Your task to perform on an android device: turn on location history Image 0: 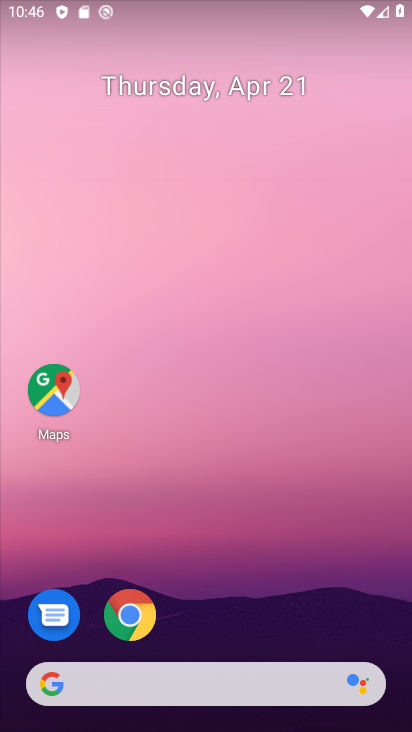
Step 0: drag from (323, 450) to (307, 85)
Your task to perform on an android device: turn on location history Image 1: 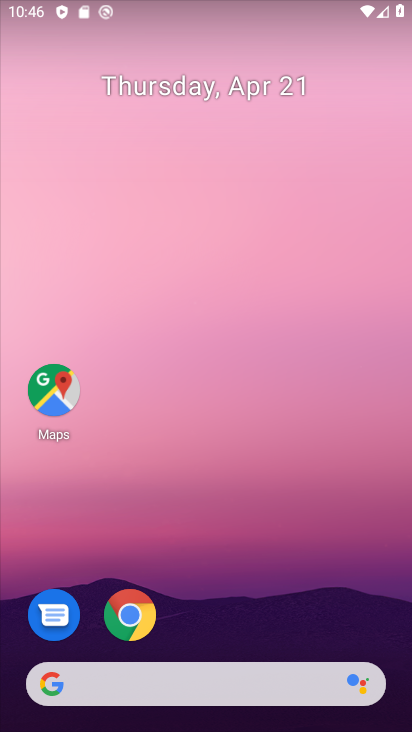
Step 1: click (236, 242)
Your task to perform on an android device: turn on location history Image 2: 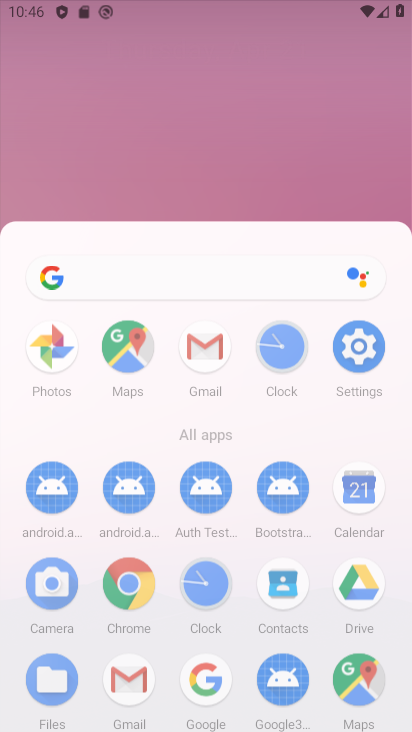
Step 2: drag from (267, 589) to (224, 244)
Your task to perform on an android device: turn on location history Image 3: 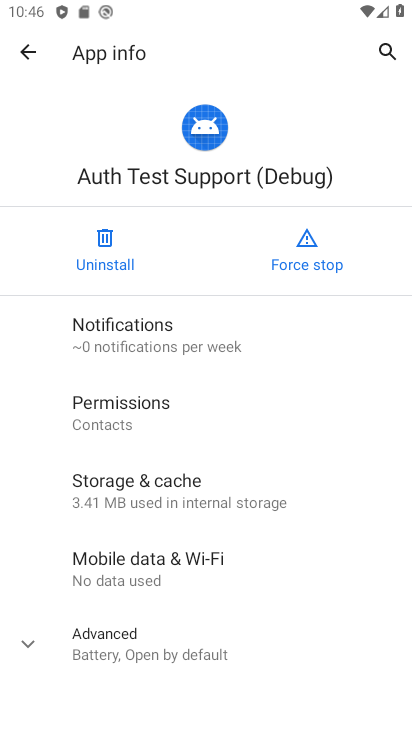
Step 3: click (25, 47)
Your task to perform on an android device: turn on location history Image 4: 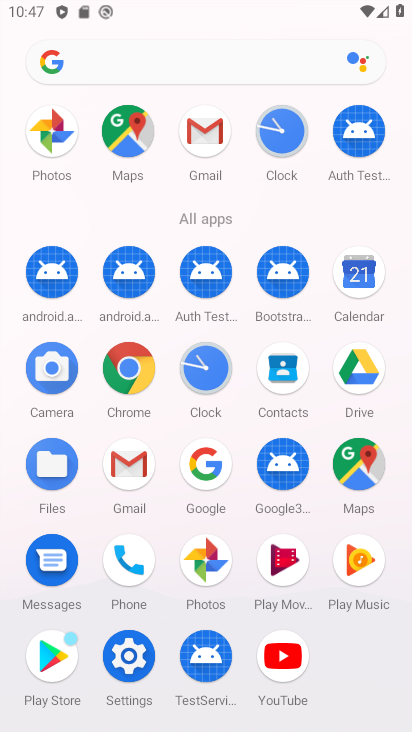
Step 4: click (354, 480)
Your task to perform on an android device: turn on location history Image 5: 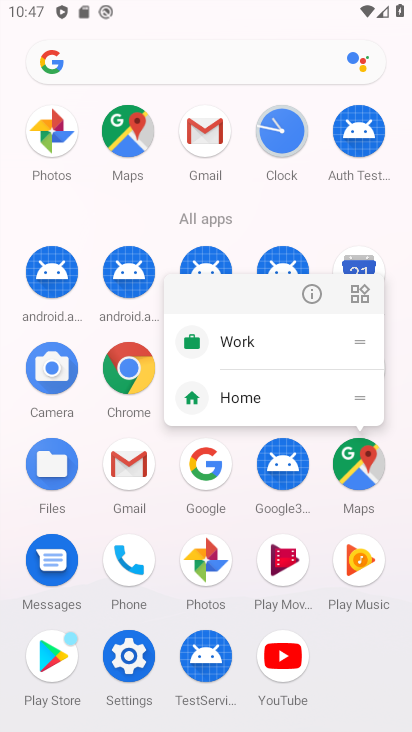
Step 5: click (370, 470)
Your task to perform on an android device: turn on location history Image 6: 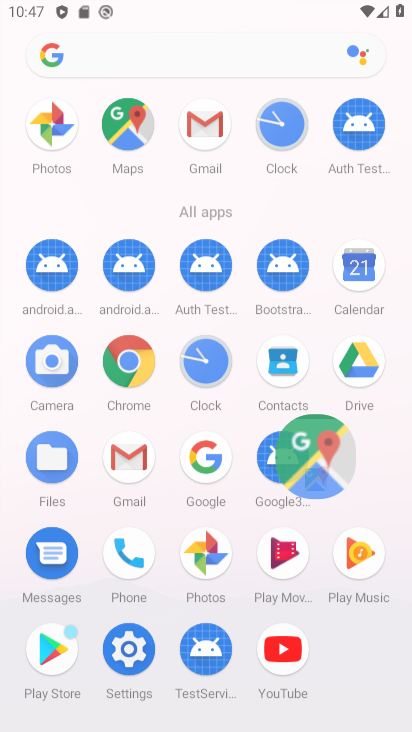
Step 6: click (352, 450)
Your task to perform on an android device: turn on location history Image 7: 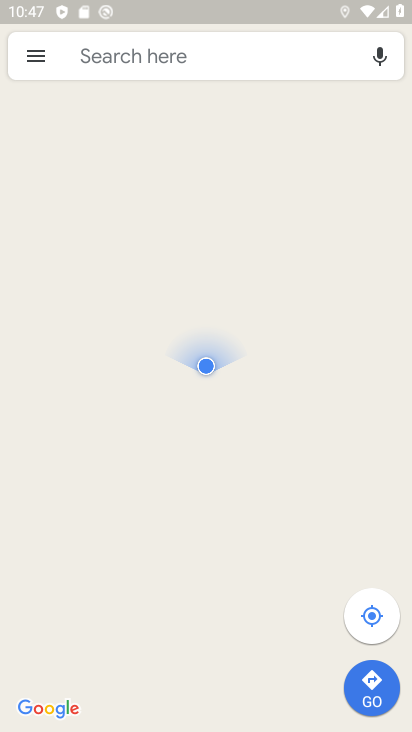
Step 7: click (39, 53)
Your task to perform on an android device: turn on location history Image 8: 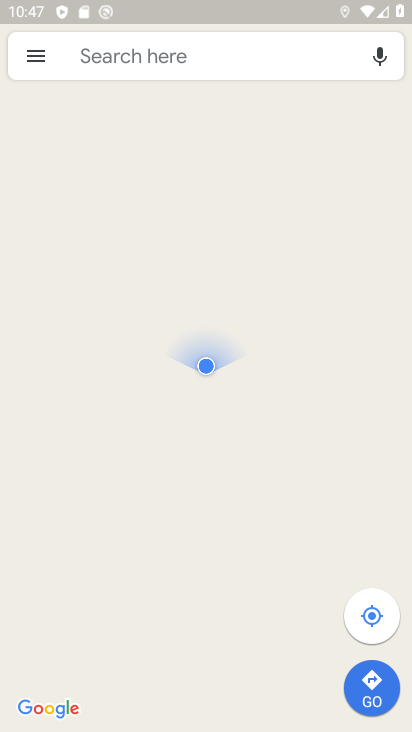
Step 8: click (39, 53)
Your task to perform on an android device: turn on location history Image 9: 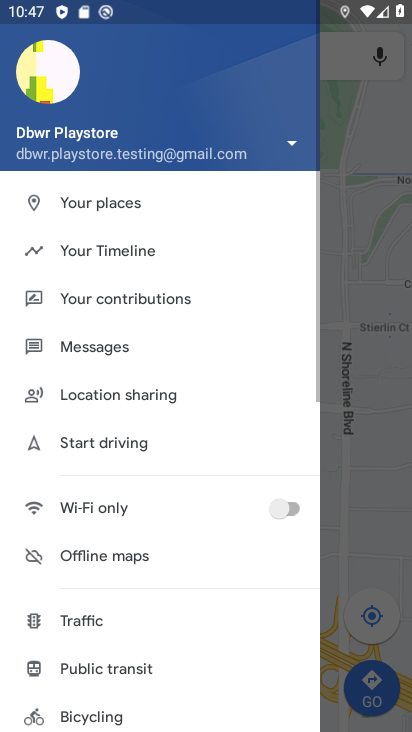
Step 9: click (117, 250)
Your task to perform on an android device: turn on location history Image 10: 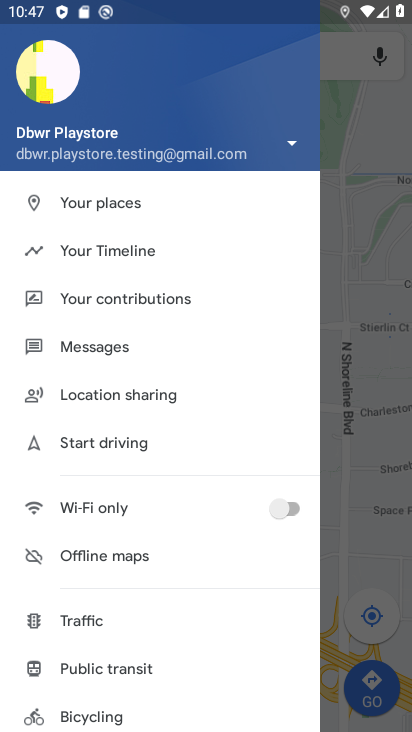
Step 10: click (117, 246)
Your task to perform on an android device: turn on location history Image 11: 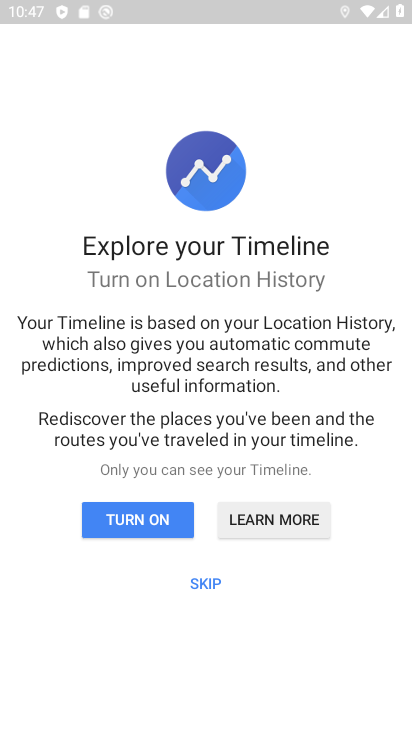
Step 11: click (117, 246)
Your task to perform on an android device: turn on location history Image 12: 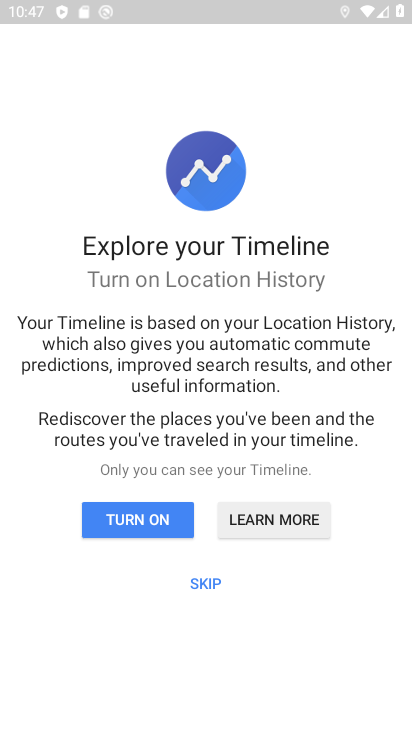
Step 12: click (121, 516)
Your task to perform on an android device: turn on location history Image 13: 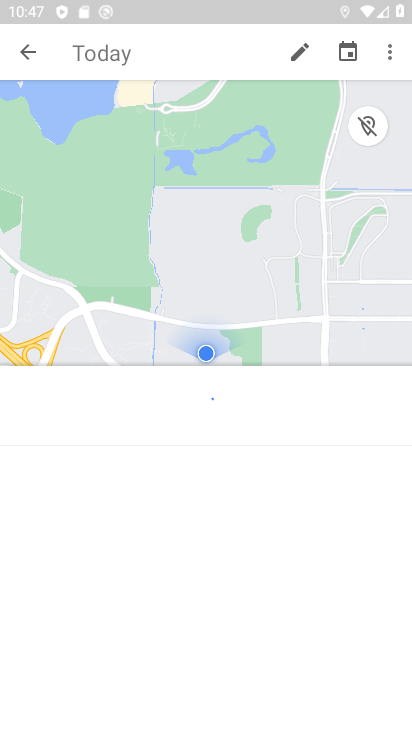
Step 13: click (388, 49)
Your task to perform on an android device: turn on location history Image 14: 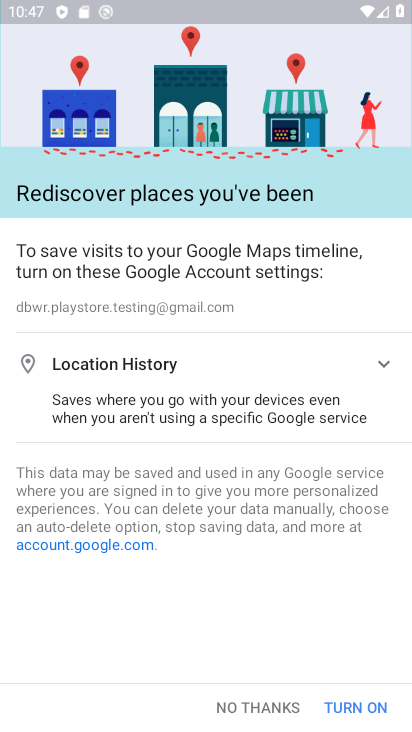
Step 14: click (356, 716)
Your task to perform on an android device: turn on location history Image 15: 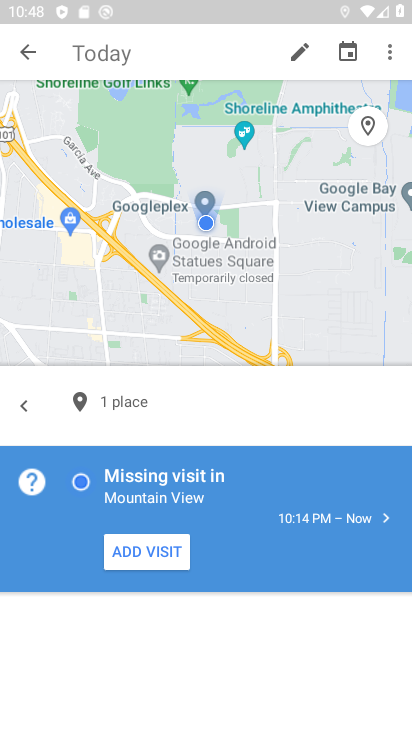
Step 15: click (390, 50)
Your task to perform on an android device: turn on location history Image 16: 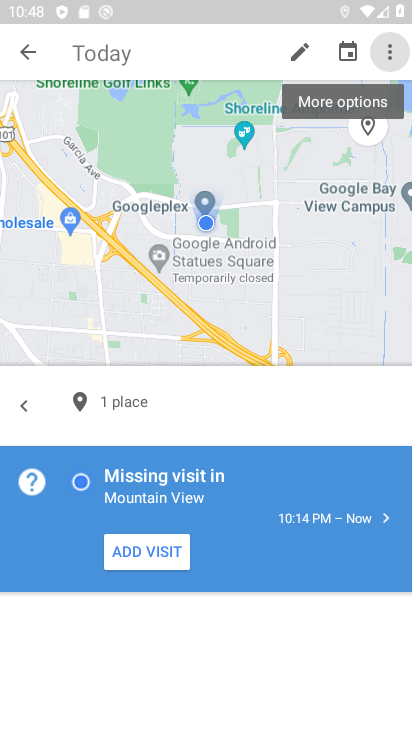
Step 16: click (390, 50)
Your task to perform on an android device: turn on location history Image 17: 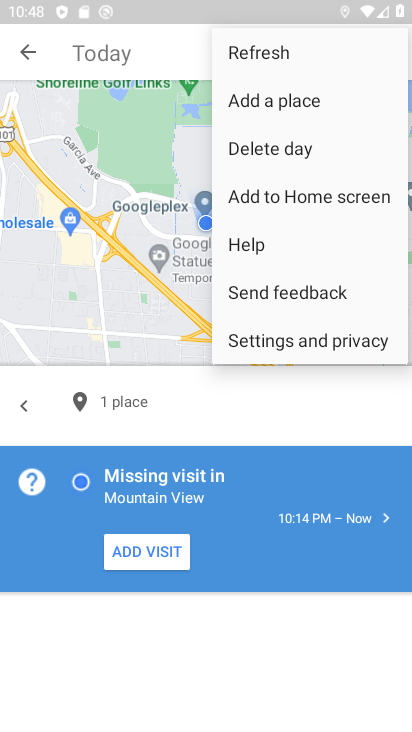
Step 17: click (298, 335)
Your task to perform on an android device: turn on location history Image 18: 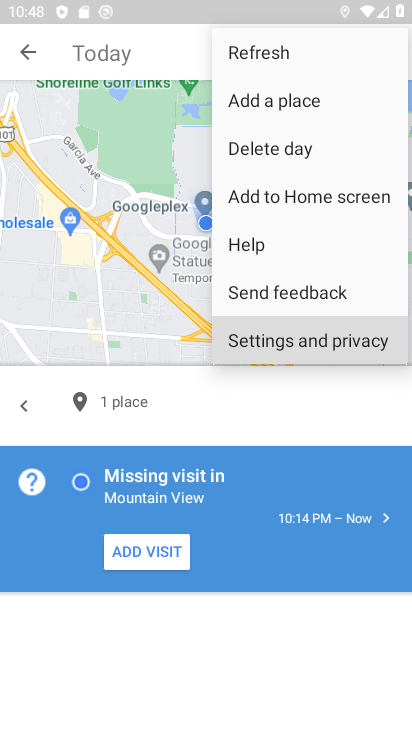
Step 18: click (298, 335)
Your task to perform on an android device: turn on location history Image 19: 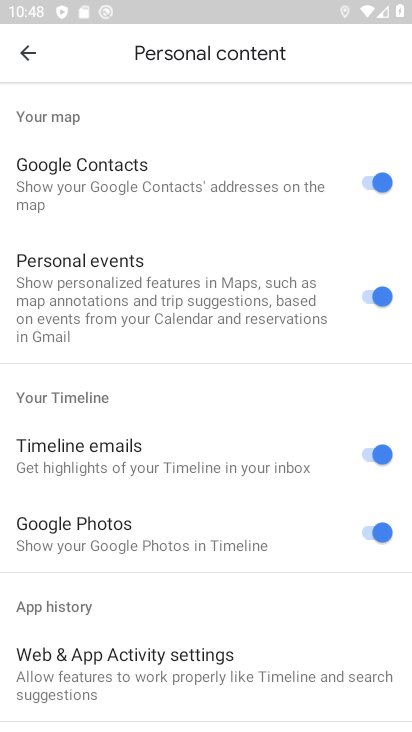
Step 19: click (139, 78)
Your task to perform on an android device: turn on location history Image 20: 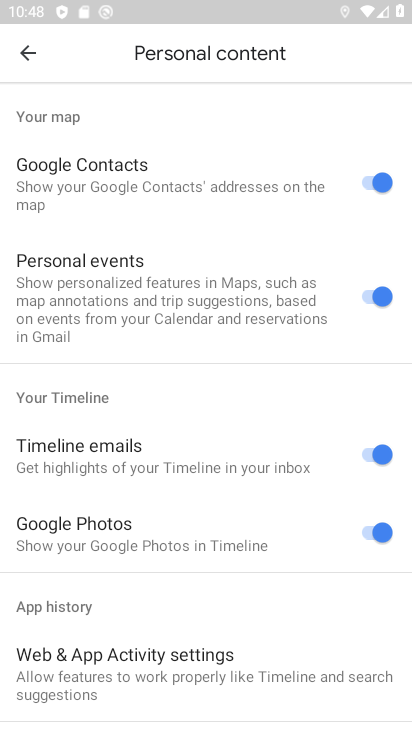
Step 20: drag from (210, 479) to (150, 85)
Your task to perform on an android device: turn on location history Image 21: 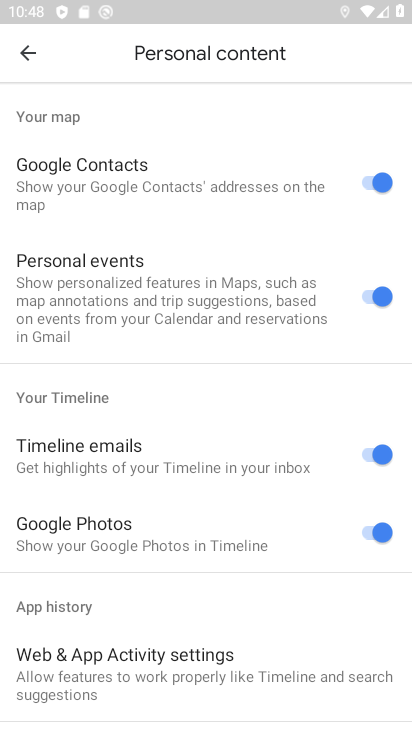
Step 21: drag from (186, 268) to (171, 135)
Your task to perform on an android device: turn on location history Image 22: 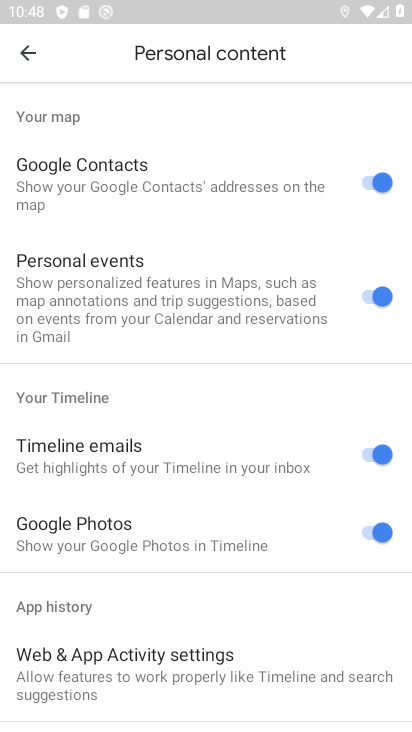
Step 22: drag from (172, 326) to (141, 119)
Your task to perform on an android device: turn on location history Image 23: 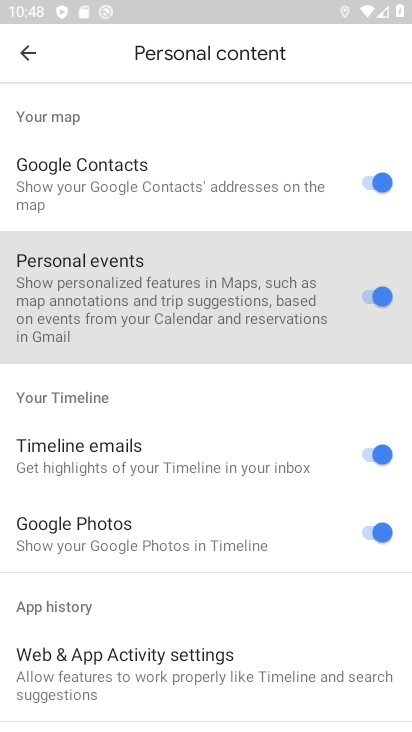
Step 23: drag from (195, 565) to (126, 100)
Your task to perform on an android device: turn on location history Image 24: 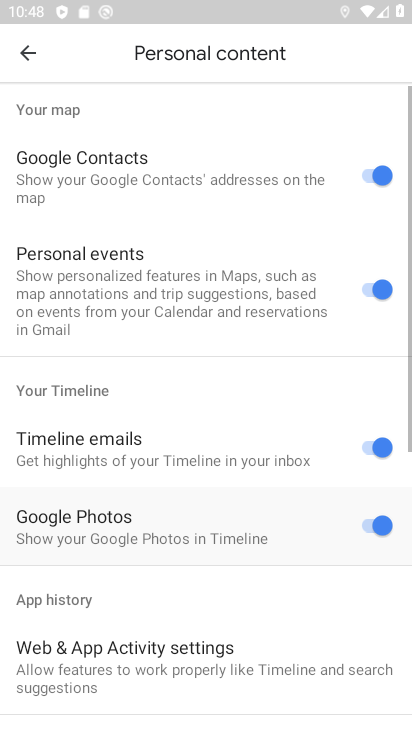
Step 24: drag from (107, 302) to (86, 148)
Your task to perform on an android device: turn on location history Image 25: 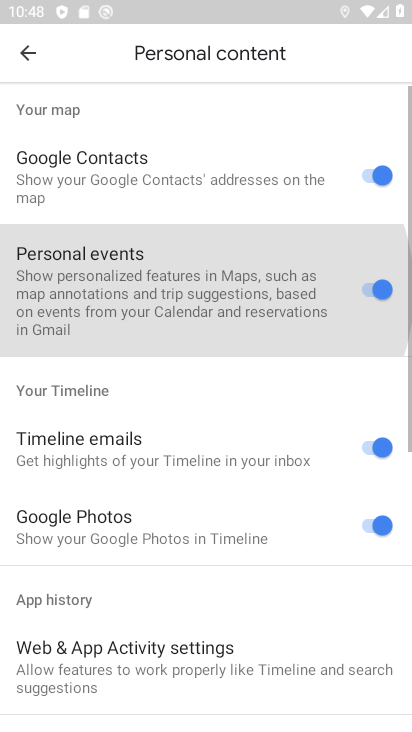
Step 25: drag from (179, 536) to (85, 173)
Your task to perform on an android device: turn on location history Image 26: 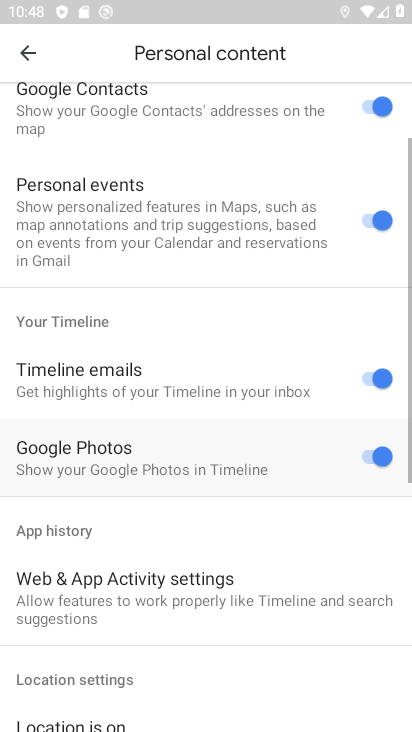
Step 26: drag from (74, 220) to (55, 127)
Your task to perform on an android device: turn on location history Image 27: 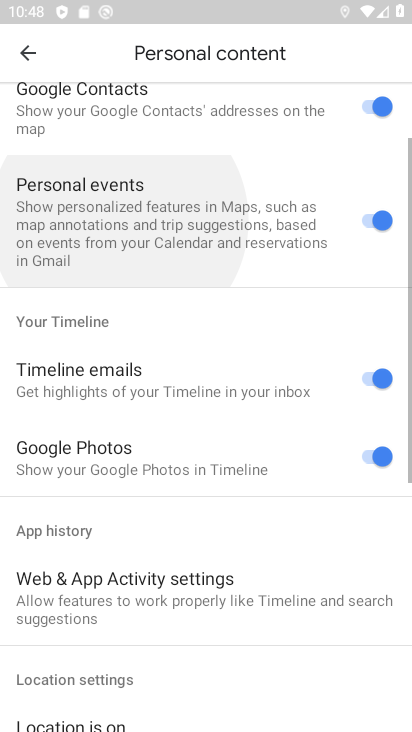
Step 27: drag from (223, 547) to (158, 109)
Your task to perform on an android device: turn on location history Image 28: 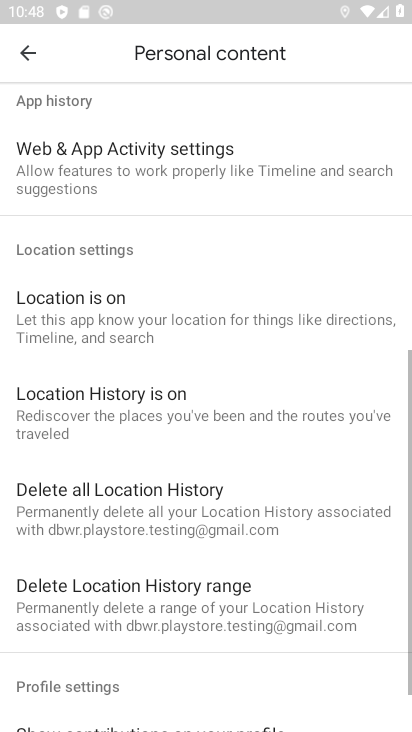
Step 28: drag from (160, 345) to (132, 73)
Your task to perform on an android device: turn on location history Image 29: 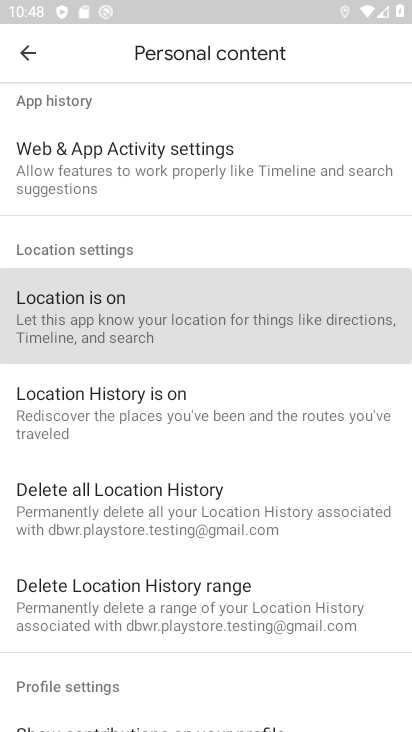
Step 29: drag from (204, 476) to (161, 176)
Your task to perform on an android device: turn on location history Image 30: 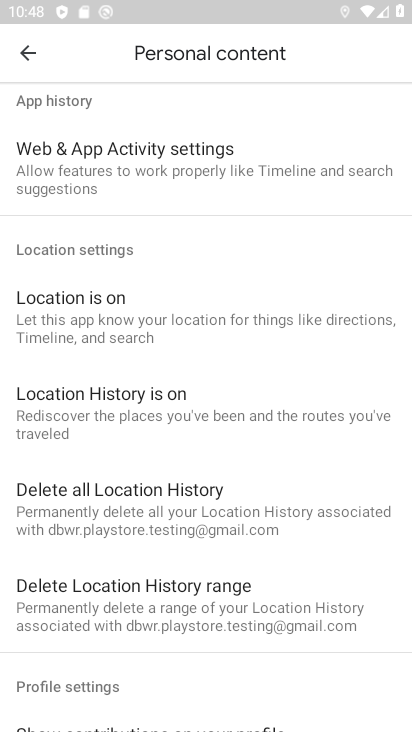
Step 30: click (101, 316)
Your task to perform on an android device: turn on location history Image 31: 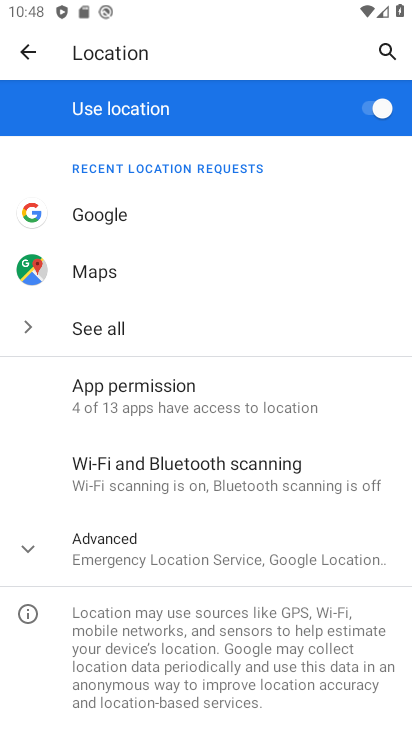
Step 31: click (15, 53)
Your task to perform on an android device: turn on location history Image 32: 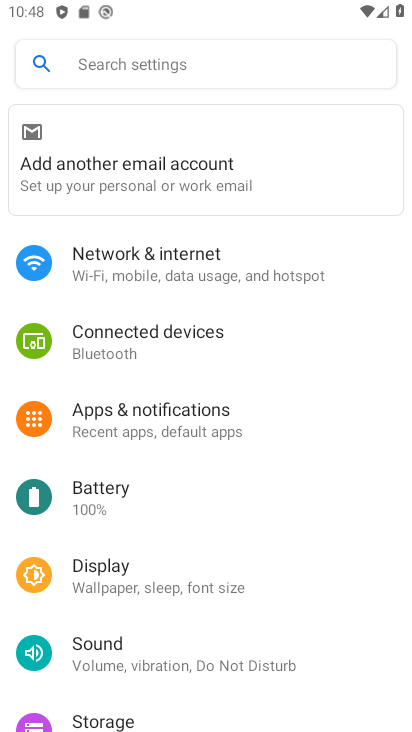
Step 32: press home button
Your task to perform on an android device: turn on location history Image 33: 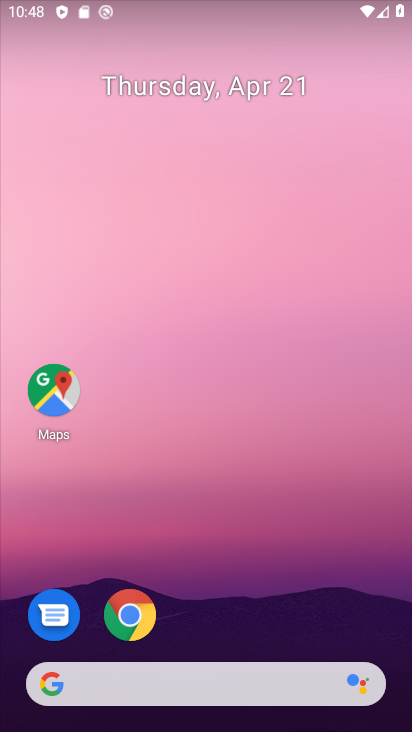
Step 33: drag from (264, 637) to (65, 29)
Your task to perform on an android device: turn on location history Image 34: 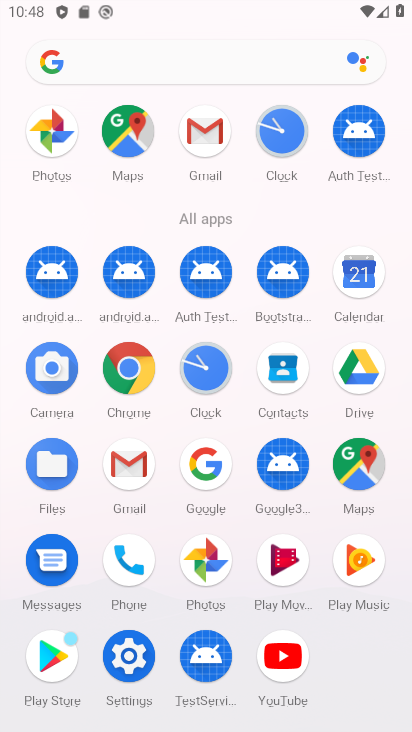
Step 34: click (119, 132)
Your task to perform on an android device: turn on location history Image 35: 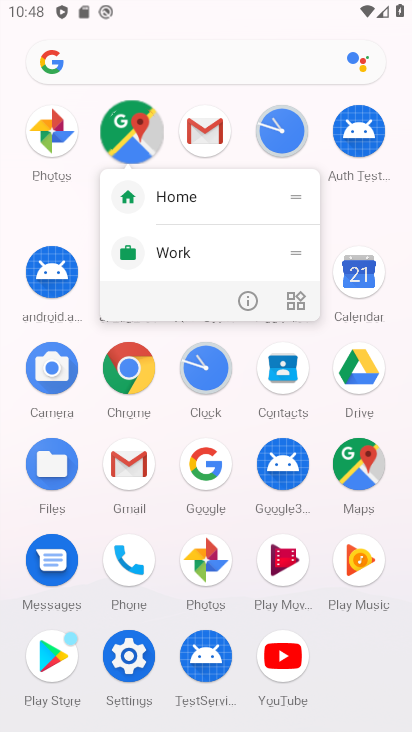
Step 35: click (123, 133)
Your task to perform on an android device: turn on location history Image 36: 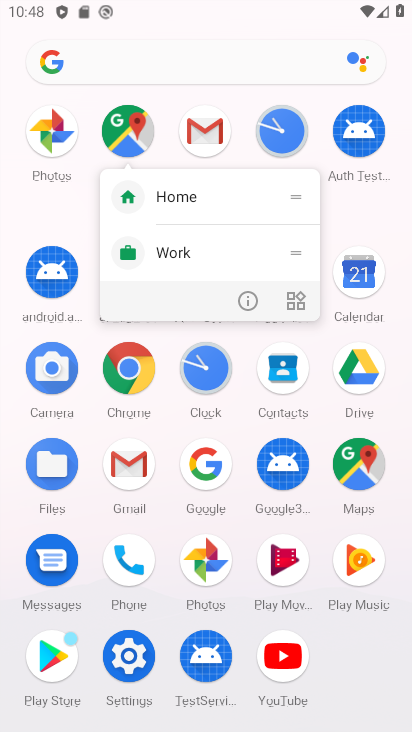
Step 36: click (124, 132)
Your task to perform on an android device: turn on location history Image 37: 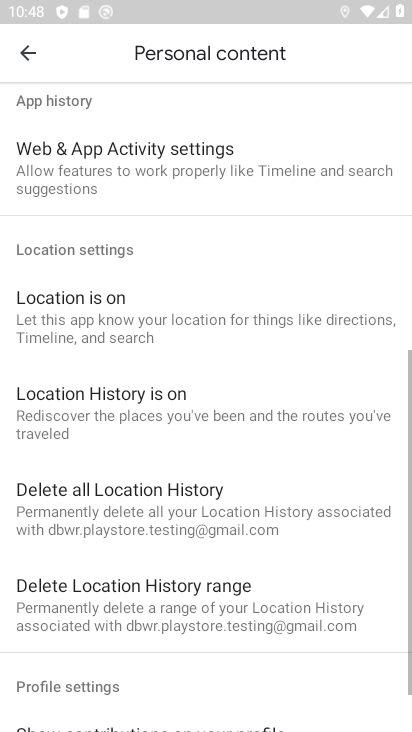
Step 37: click (119, 112)
Your task to perform on an android device: turn on location history Image 38: 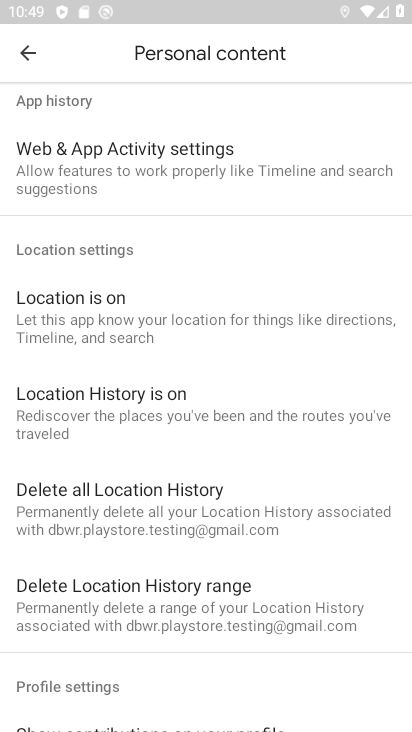
Step 38: click (87, 406)
Your task to perform on an android device: turn on location history Image 39: 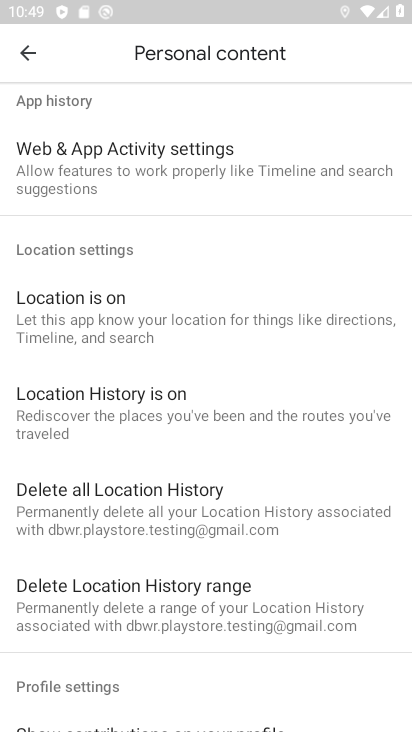
Step 39: click (80, 406)
Your task to perform on an android device: turn on location history Image 40: 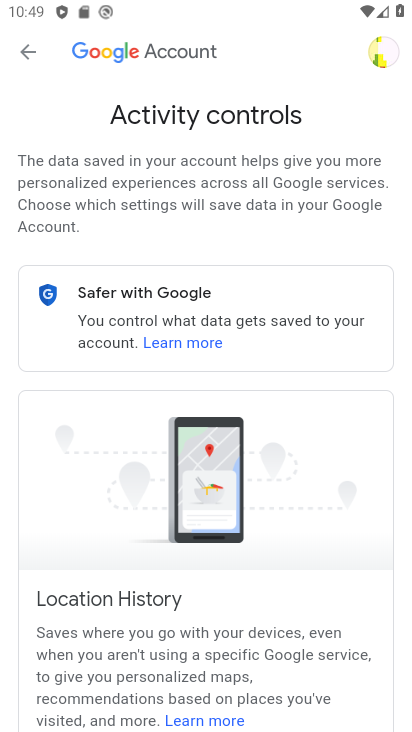
Step 40: drag from (180, 394) to (147, 170)
Your task to perform on an android device: turn on location history Image 41: 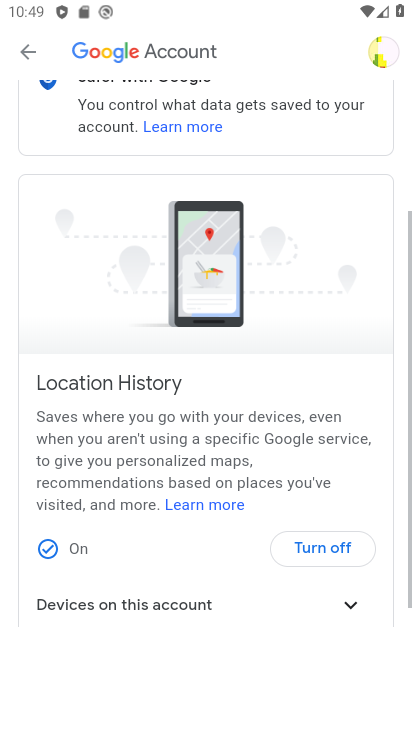
Step 41: drag from (195, 196) to (298, 168)
Your task to perform on an android device: turn on location history Image 42: 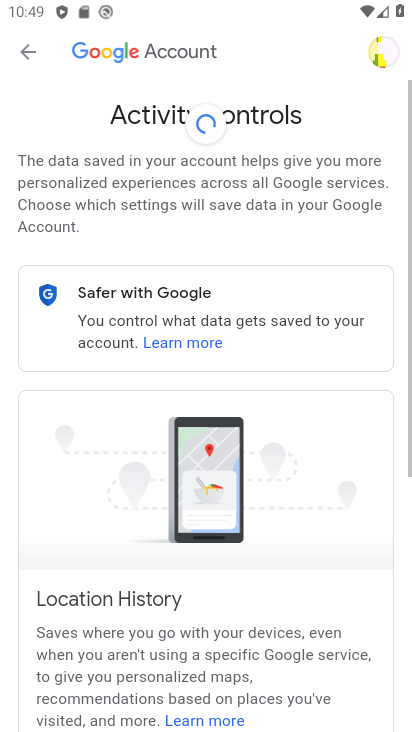
Step 42: click (324, 540)
Your task to perform on an android device: turn on location history Image 43: 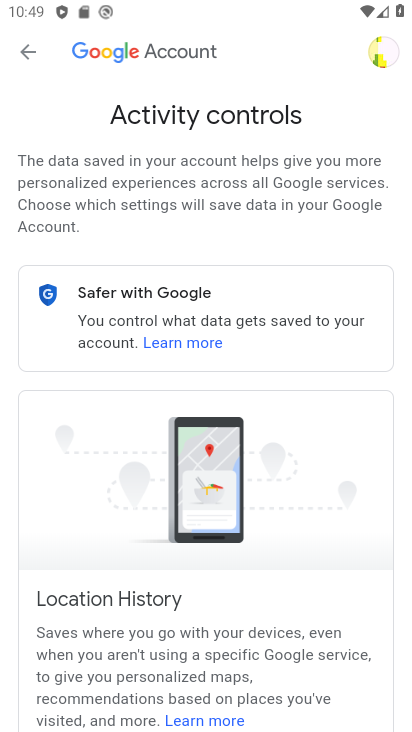
Step 43: drag from (253, 469) to (215, 168)
Your task to perform on an android device: turn on location history Image 44: 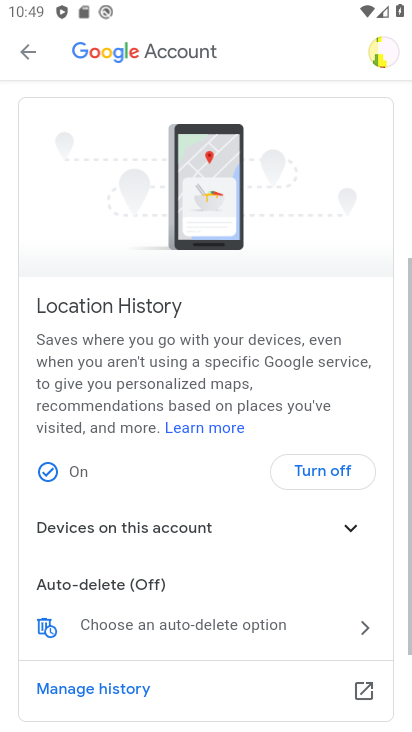
Step 44: drag from (200, 270) to (168, 121)
Your task to perform on an android device: turn on location history Image 45: 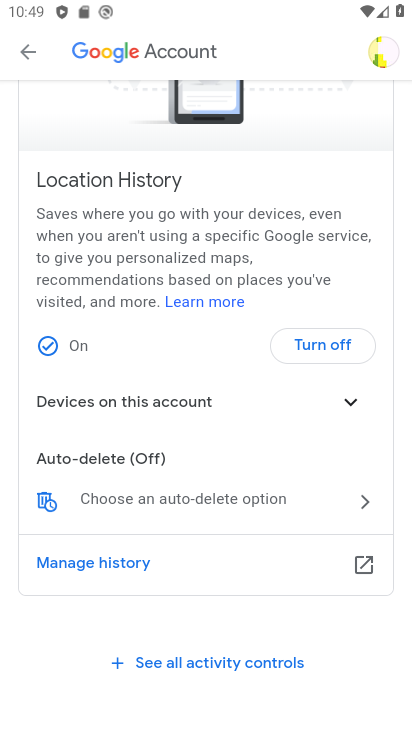
Step 45: click (322, 339)
Your task to perform on an android device: turn on location history Image 46: 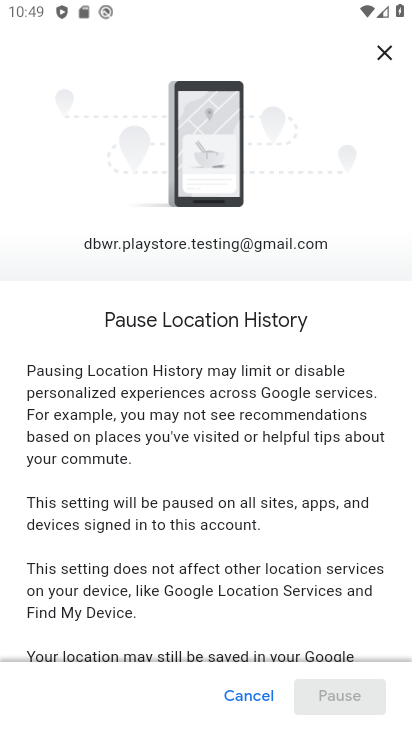
Step 46: task complete